Your task to perform on an android device: turn off picture-in-picture Image 0: 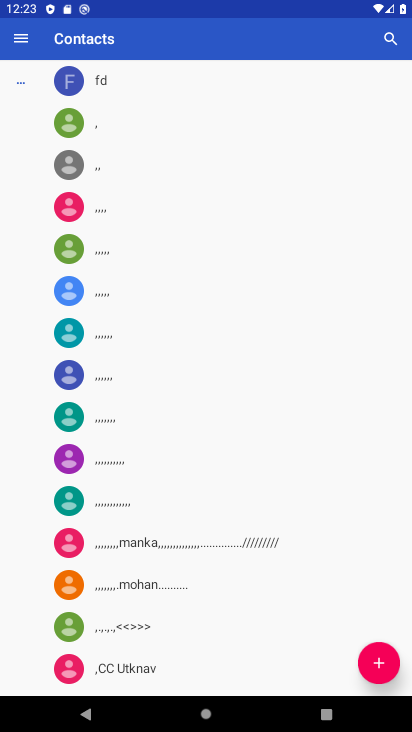
Step 0: press home button
Your task to perform on an android device: turn off picture-in-picture Image 1: 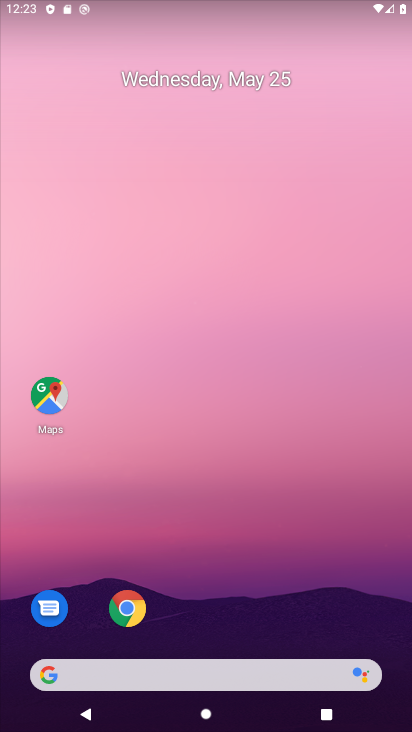
Step 1: click (137, 600)
Your task to perform on an android device: turn off picture-in-picture Image 2: 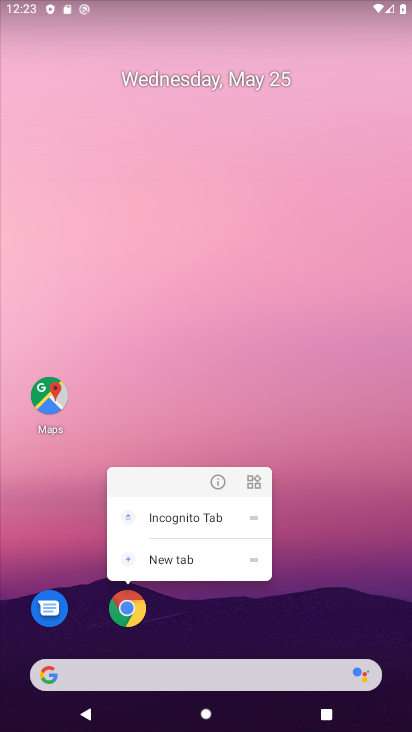
Step 2: click (211, 484)
Your task to perform on an android device: turn off picture-in-picture Image 3: 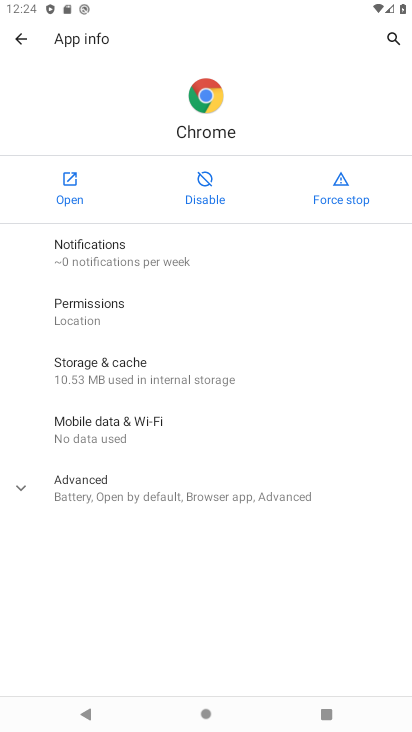
Step 3: click (211, 491)
Your task to perform on an android device: turn off picture-in-picture Image 4: 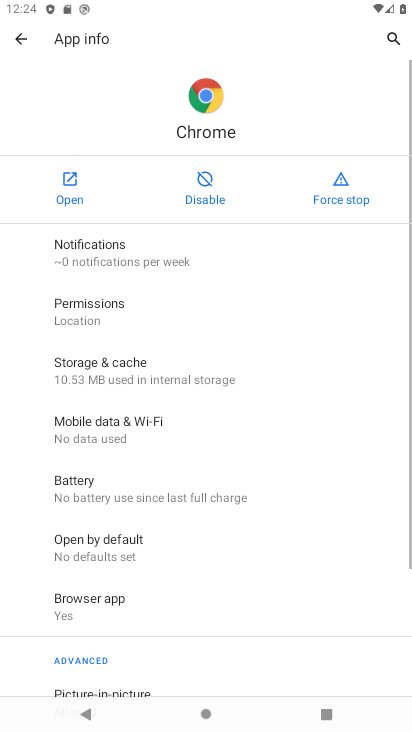
Step 4: drag from (253, 488) to (271, 241)
Your task to perform on an android device: turn off picture-in-picture Image 5: 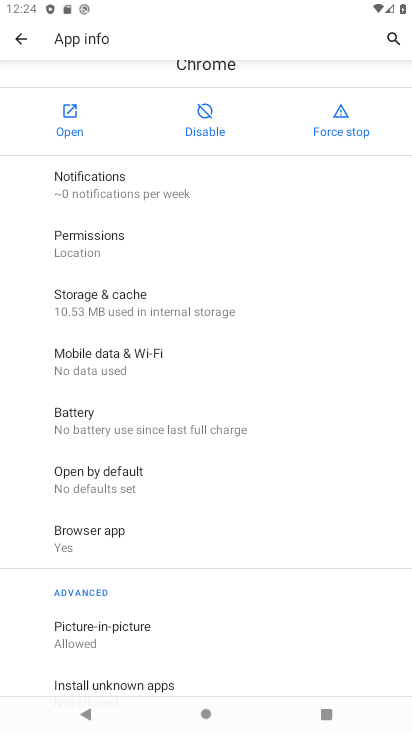
Step 5: drag from (157, 676) to (247, 135)
Your task to perform on an android device: turn off picture-in-picture Image 6: 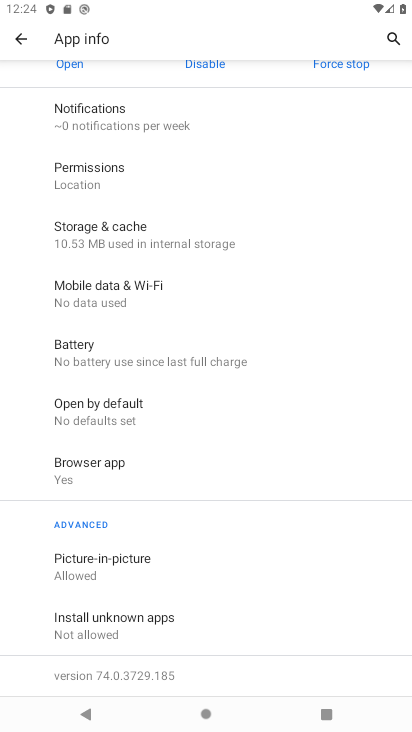
Step 6: click (130, 555)
Your task to perform on an android device: turn off picture-in-picture Image 7: 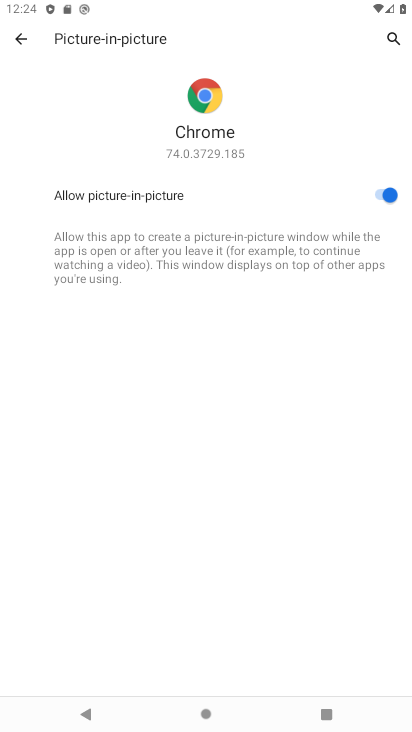
Step 7: click (386, 190)
Your task to perform on an android device: turn off picture-in-picture Image 8: 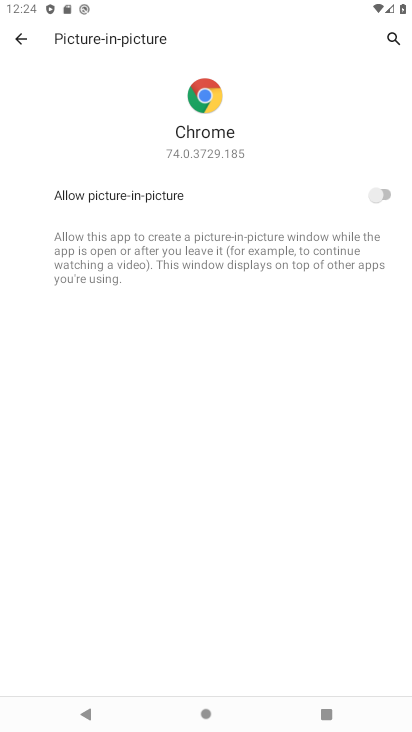
Step 8: task complete